Your task to perform on an android device: turn off wifi Image 0: 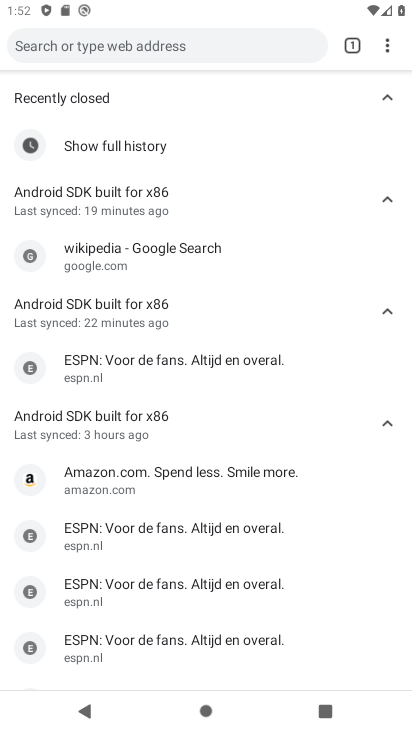
Step 0: press home button
Your task to perform on an android device: turn off wifi Image 1: 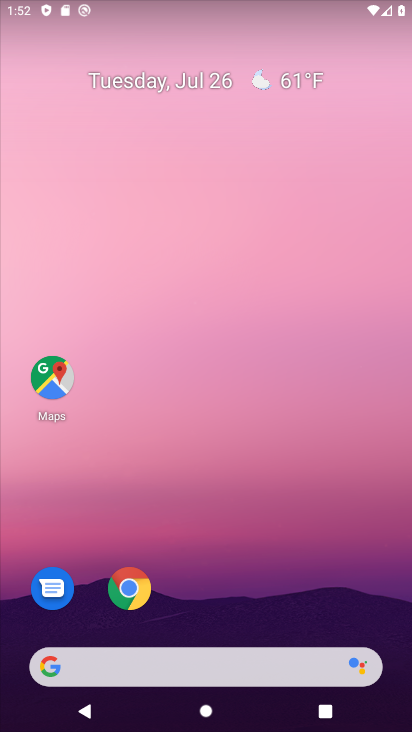
Step 1: drag from (250, 574) to (299, 41)
Your task to perform on an android device: turn off wifi Image 2: 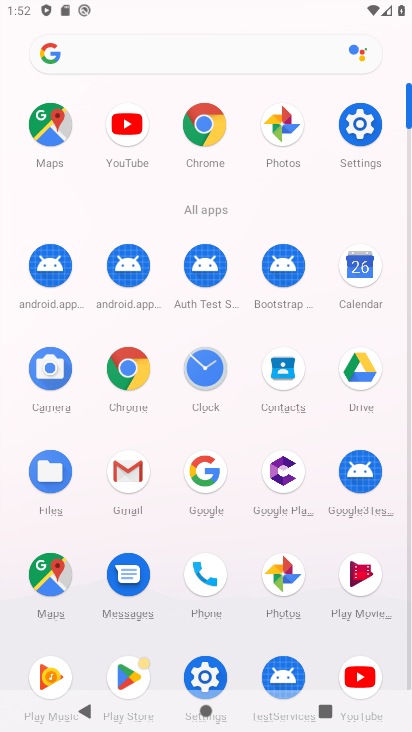
Step 2: click (352, 130)
Your task to perform on an android device: turn off wifi Image 3: 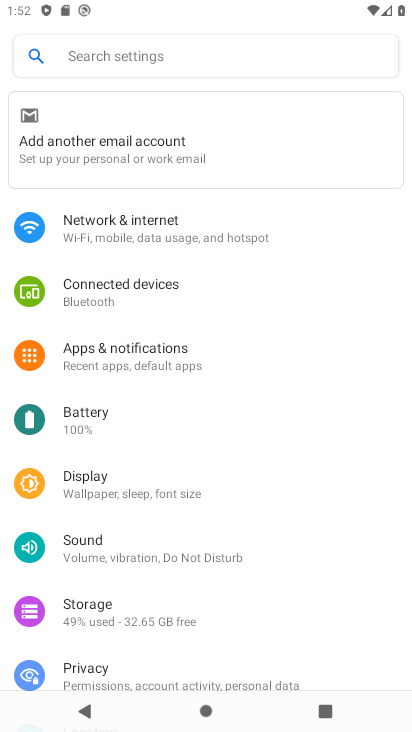
Step 3: click (156, 235)
Your task to perform on an android device: turn off wifi Image 4: 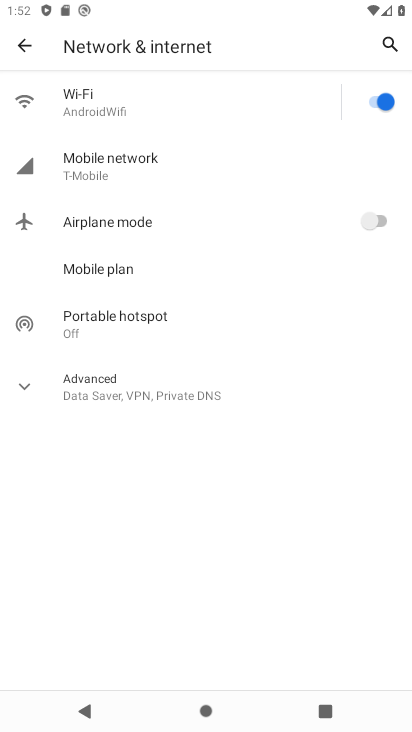
Step 4: click (386, 112)
Your task to perform on an android device: turn off wifi Image 5: 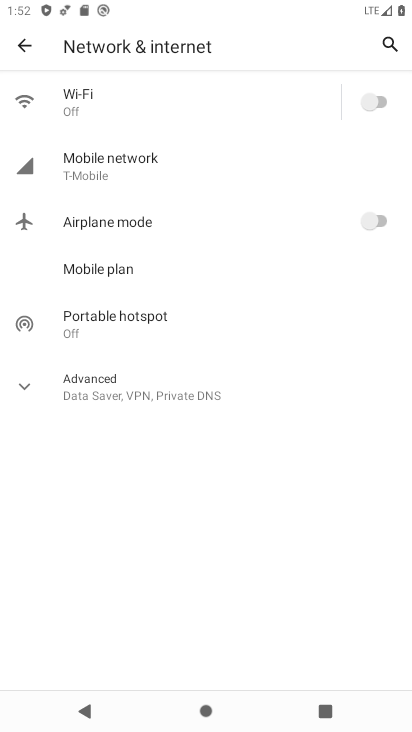
Step 5: task complete